Your task to perform on an android device: delete browsing data in the chrome app Image 0: 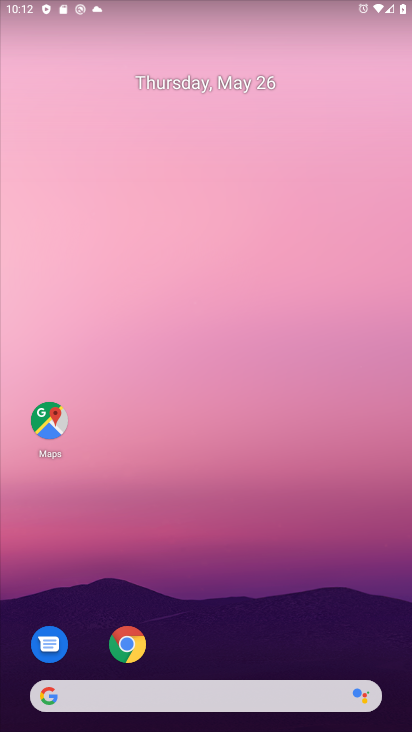
Step 0: click (140, 639)
Your task to perform on an android device: delete browsing data in the chrome app Image 1: 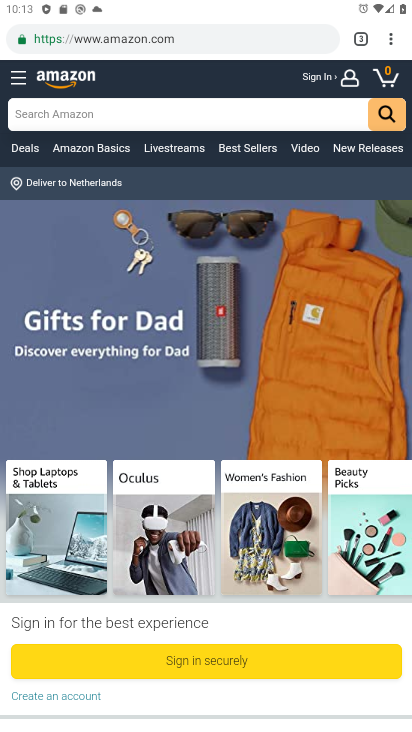
Step 1: click (394, 40)
Your task to perform on an android device: delete browsing data in the chrome app Image 2: 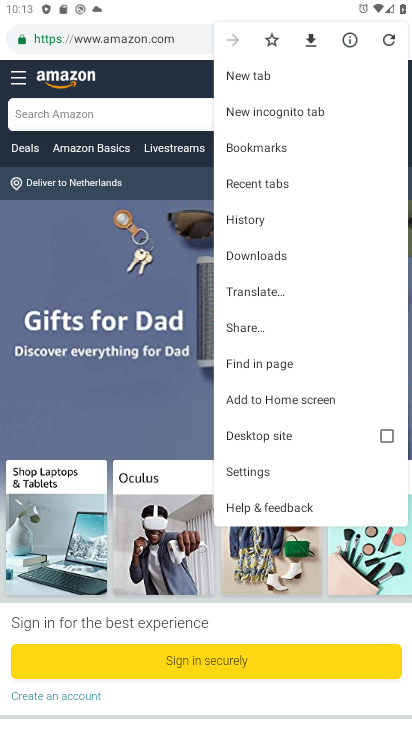
Step 2: click (269, 225)
Your task to perform on an android device: delete browsing data in the chrome app Image 3: 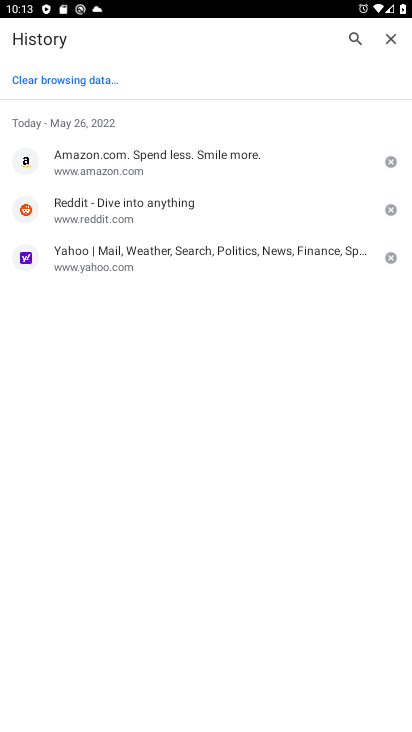
Step 3: click (92, 82)
Your task to perform on an android device: delete browsing data in the chrome app Image 4: 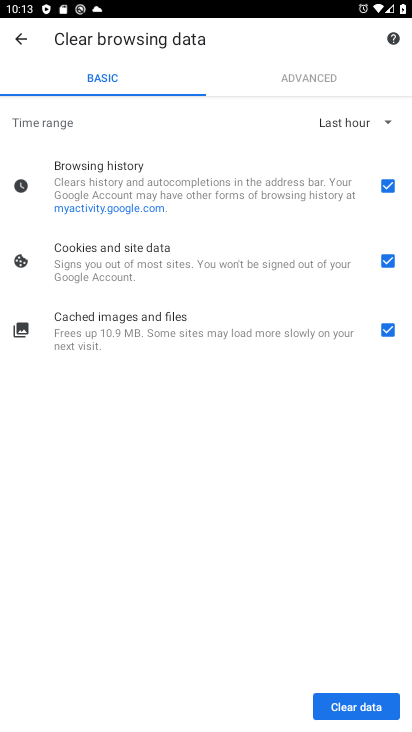
Step 4: click (345, 687)
Your task to perform on an android device: delete browsing data in the chrome app Image 5: 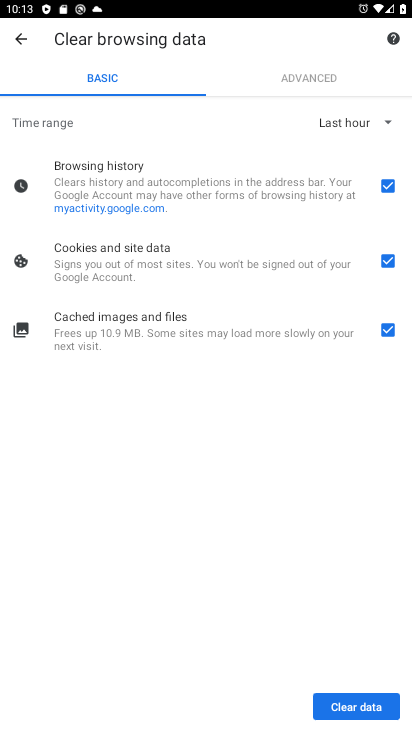
Step 5: click (336, 697)
Your task to perform on an android device: delete browsing data in the chrome app Image 6: 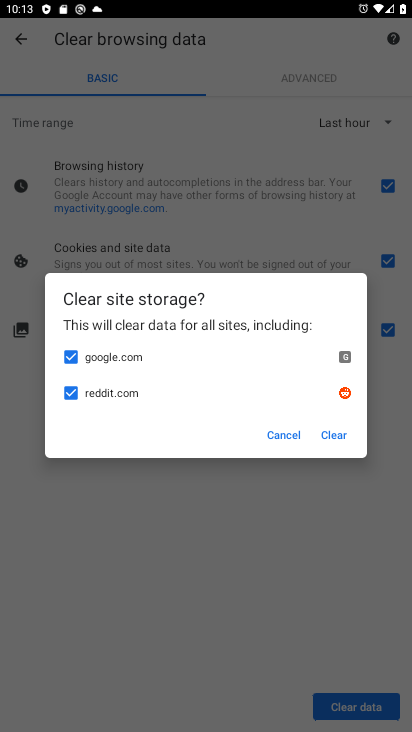
Step 6: click (319, 426)
Your task to perform on an android device: delete browsing data in the chrome app Image 7: 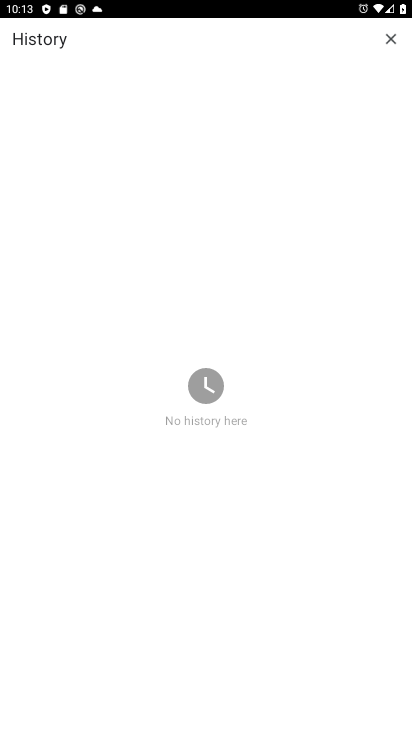
Step 7: task complete